Your task to perform on an android device: Go to internet settings Image 0: 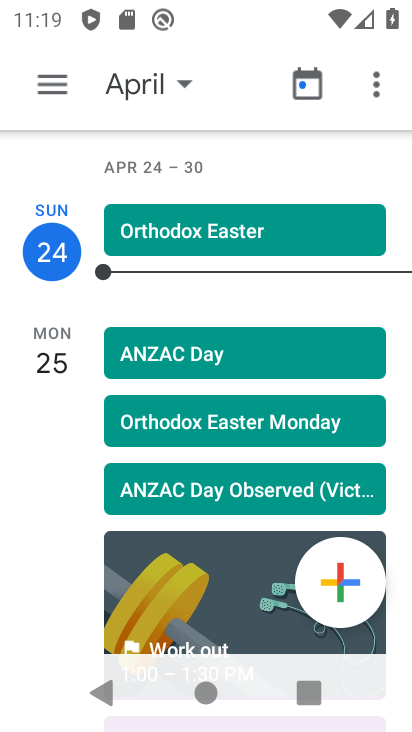
Step 0: press home button
Your task to perform on an android device: Go to internet settings Image 1: 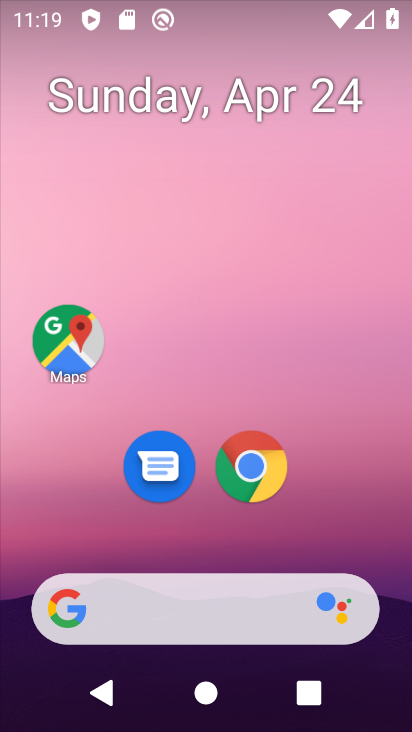
Step 1: drag from (366, 553) to (303, 0)
Your task to perform on an android device: Go to internet settings Image 2: 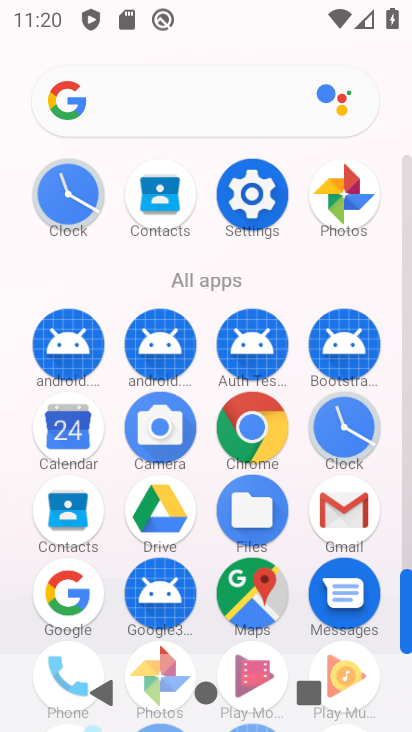
Step 2: click (254, 207)
Your task to perform on an android device: Go to internet settings Image 3: 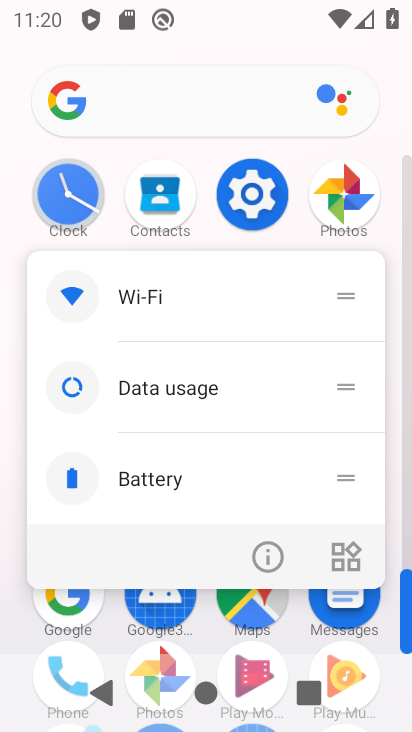
Step 3: click (259, 195)
Your task to perform on an android device: Go to internet settings Image 4: 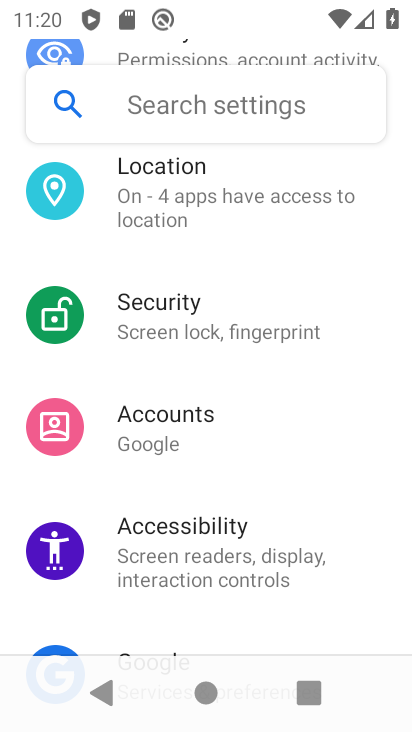
Step 4: drag from (232, 213) to (237, 459)
Your task to perform on an android device: Go to internet settings Image 5: 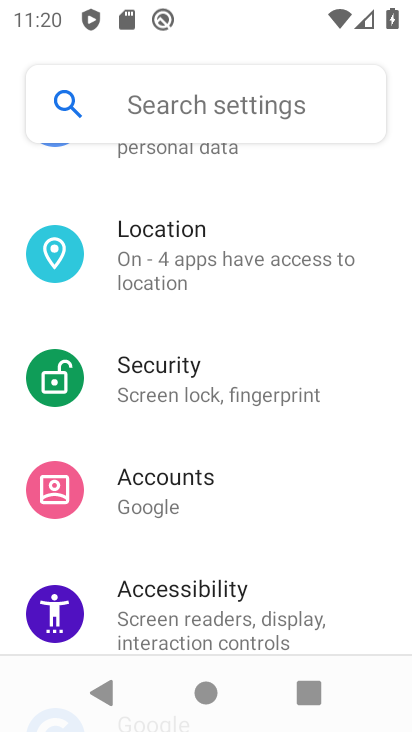
Step 5: drag from (180, 201) to (155, 632)
Your task to perform on an android device: Go to internet settings Image 6: 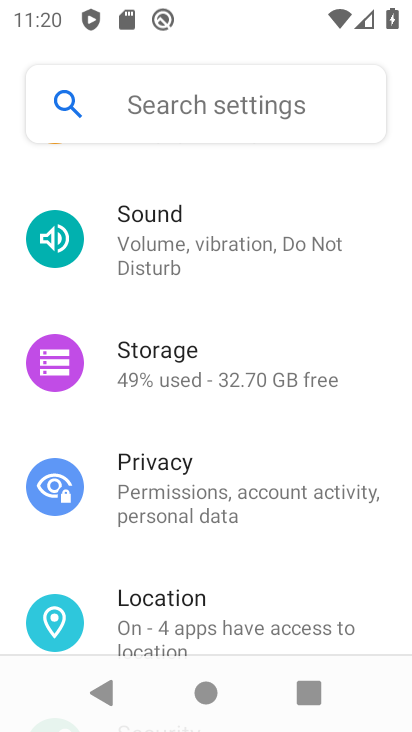
Step 6: drag from (188, 161) to (198, 730)
Your task to perform on an android device: Go to internet settings Image 7: 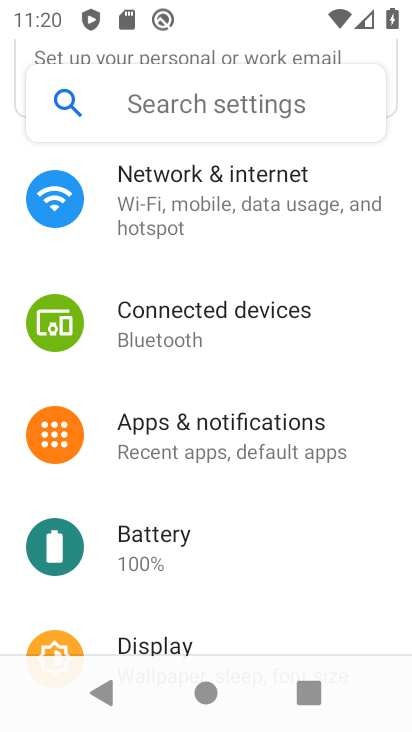
Step 7: click (158, 201)
Your task to perform on an android device: Go to internet settings Image 8: 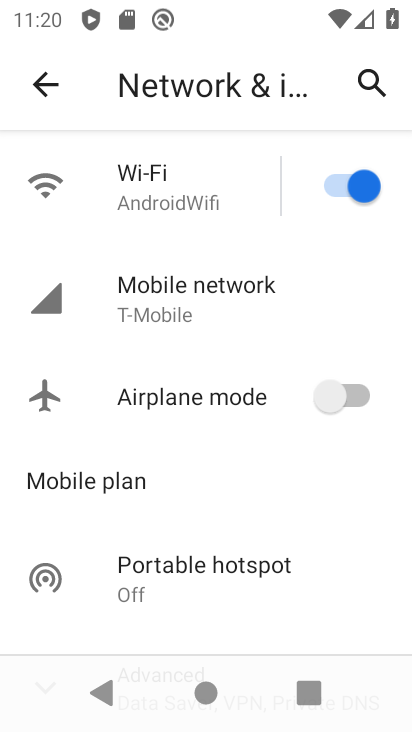
Step 8: task complete